Your task to perform on an android device: turn on improve location accuracy Image 0: 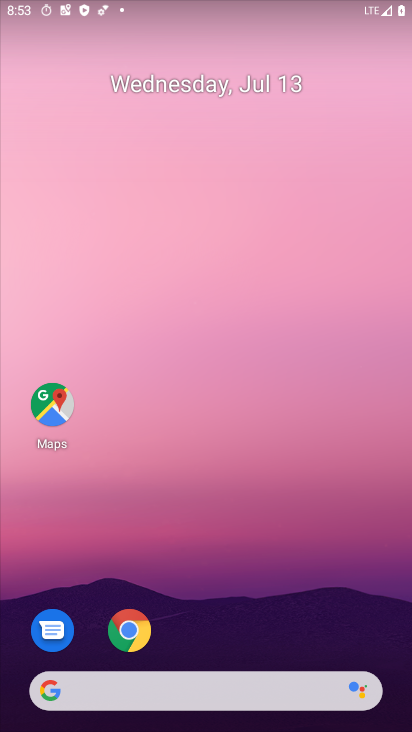
Step 0: drag from (363, 621) to (338, 69)
Your task to perform on an android device: turn on improve location accuracy Image 1: 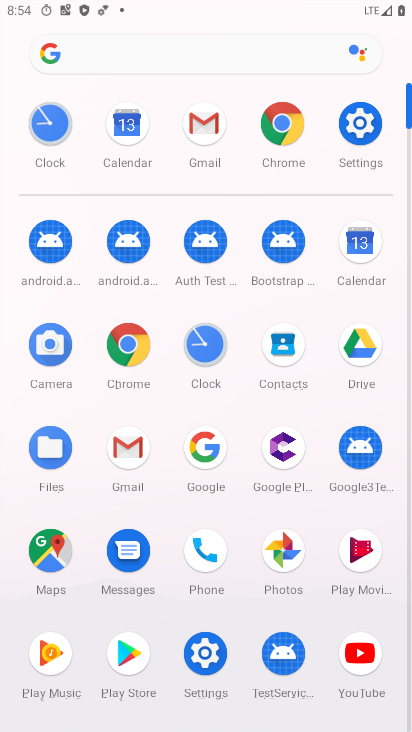
Step 1: click (366, 131)
Your task to perform on an android device: turn on improve location accuracy Image 2: 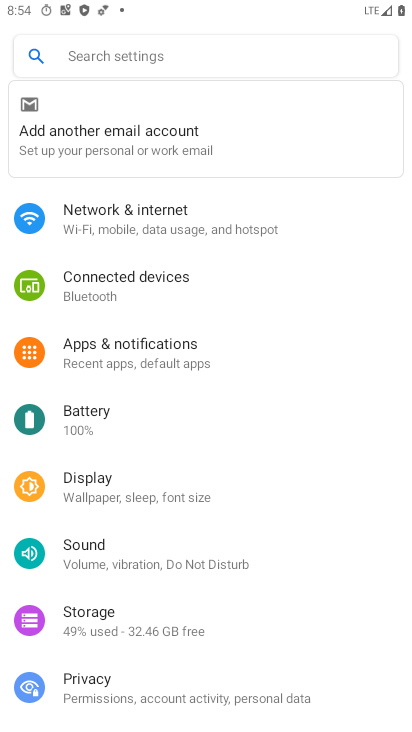
Step 2: drag from (330, 418) to (332, 295)
Your task to perform on an android device: turn on improve location accuracy Image 3: 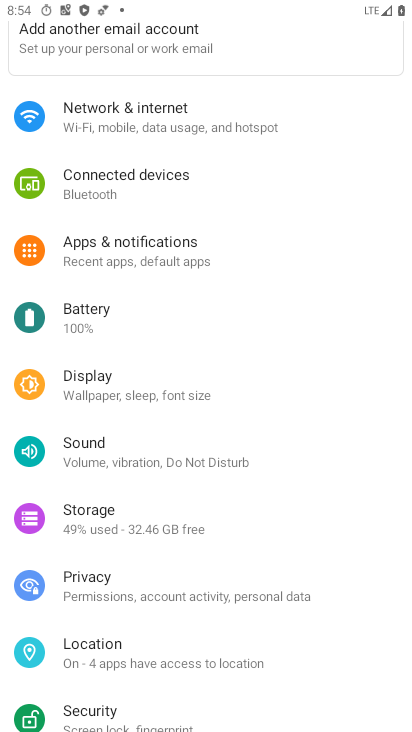
Step 3: drag from (333, 429) to (340, 292)
Your task to perform on an android device: turn on improve location accuracy Image 4: 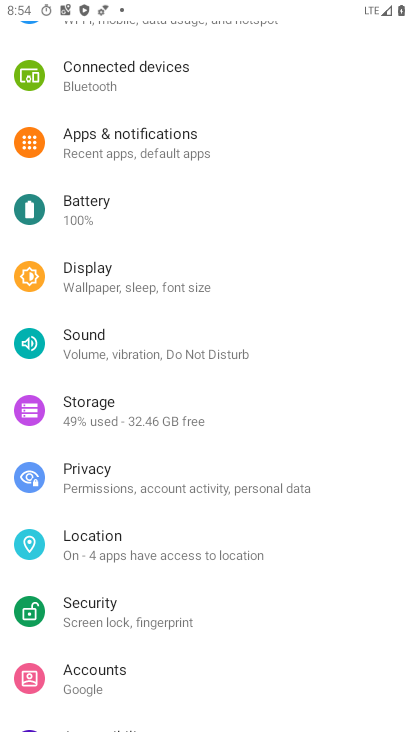
Step 4: drag from (353, 463) to (353, 334)
Your task to perform on an android device: turn on improve location accuracy Image 5: 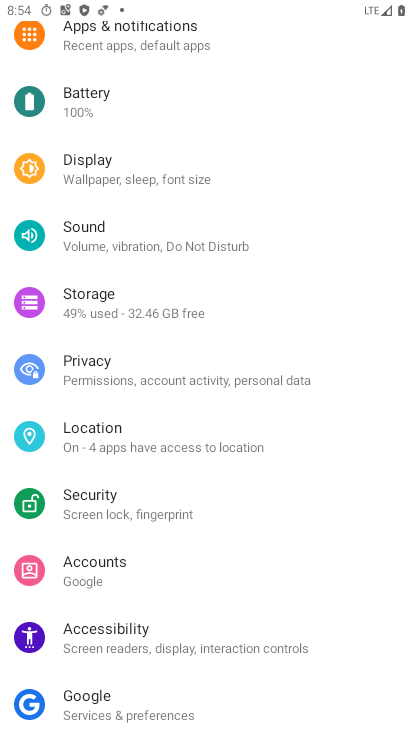
Step 5: drag from (347, 498) to (358, 373)
Your task to perform on an android device: turn on improve location accuracy Image 6: 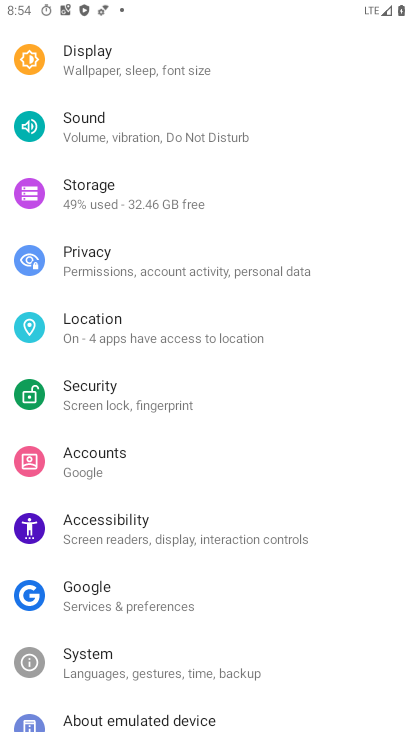
Step 6: drag from (342, 503) to (339, 369)
Your task to perform on an android device: turn on improve location accuracy Image 7: 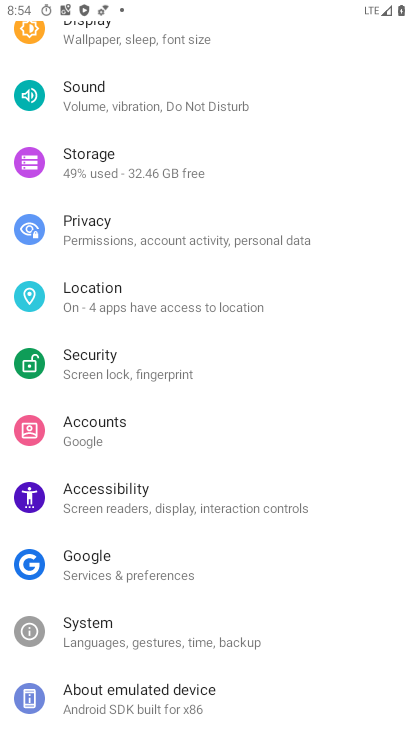
Step 7: drag from (348, 244) to (348, 316)
Your task to perform on an android device: turn on improve location accuracy Image 8: 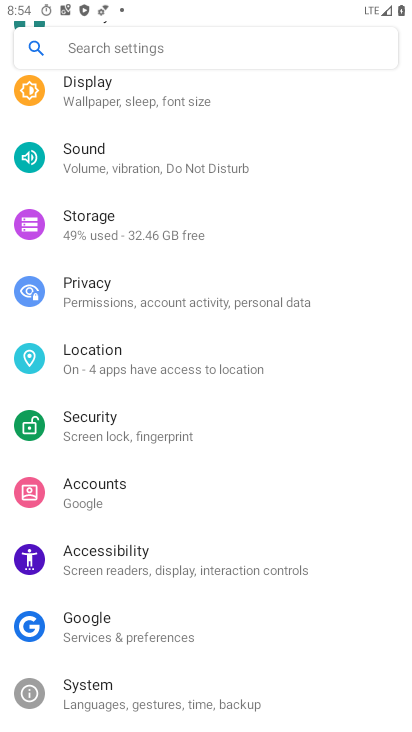
Step 8: drag from (340, 218) to (343, 313)
Your task to perform on an android device: turn on improve location accuracy Image 9: 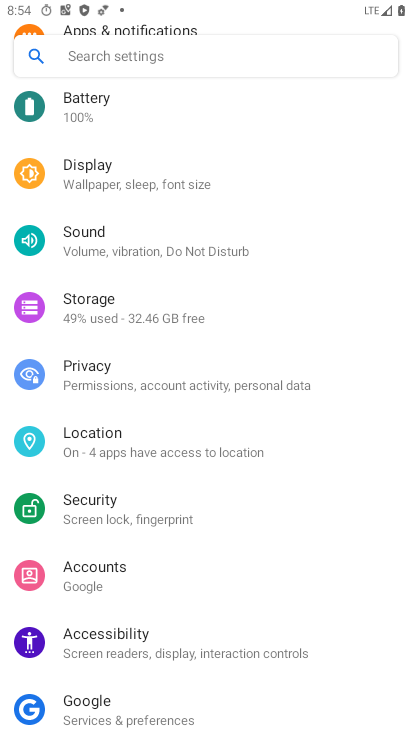
Step 9: drag from (329, 231) to (323, 326)
Your task to perform on an android device: turn on improve location accuracy Image 10: 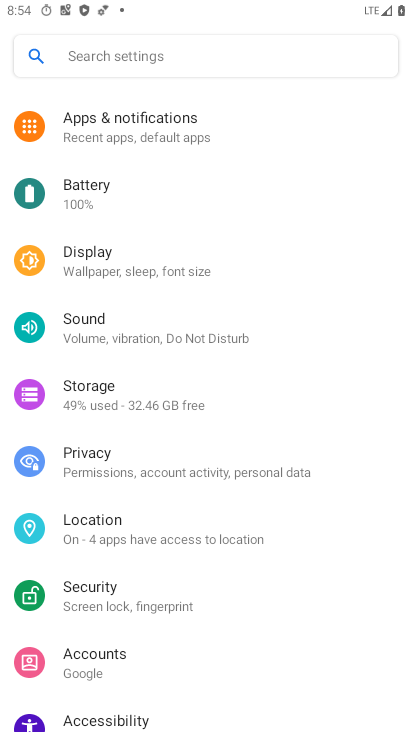
Step 10: click (280, 541)
Your task to perform on an android device: turn on improve location accuracy Image 11: 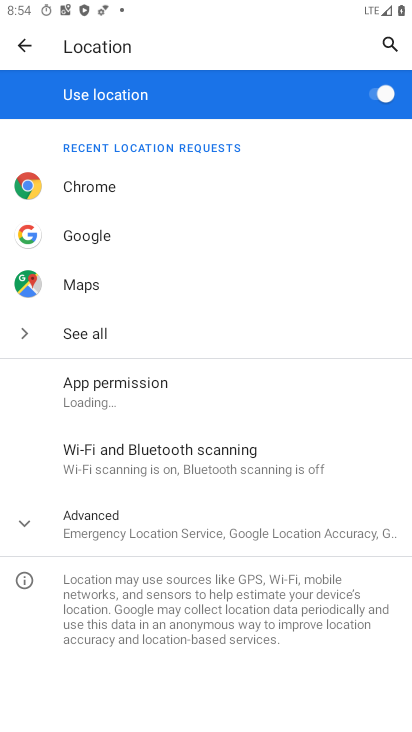
Step 11: click (280, 541)
Your task to perform on an android device: turn on improve location accuracy Image 12: 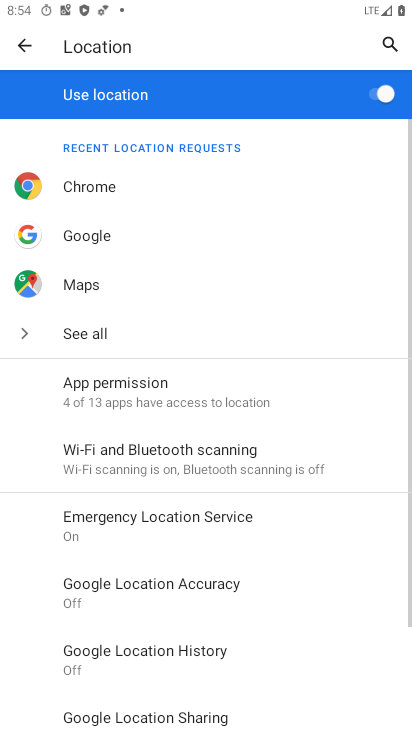
Step 12: drag from (312, 570) to (318, 503)
Your task to perform on an android device: turn on improve location accuracy Image 13: 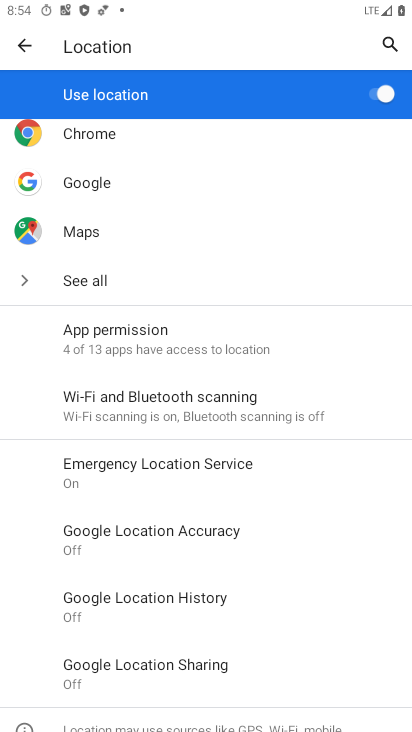
Step 13: drag from (323, 571) to (328, 494)
Your task to perform on an android device: turn on improve location accuracy Image 14: 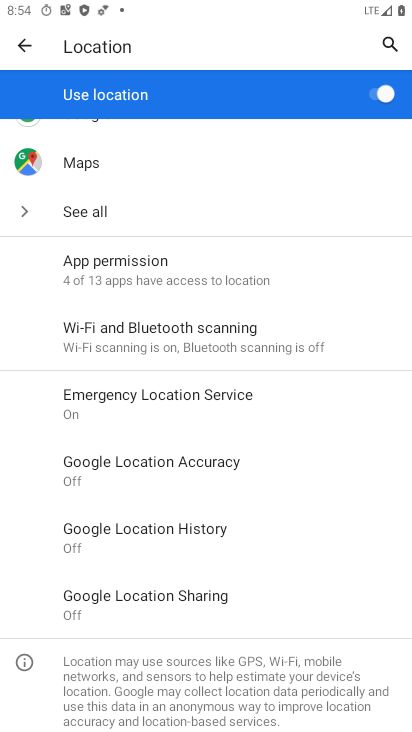
Step 14: click (249, 471)
Your task to perform on an android device: turn on improve location accuracy Image 15: 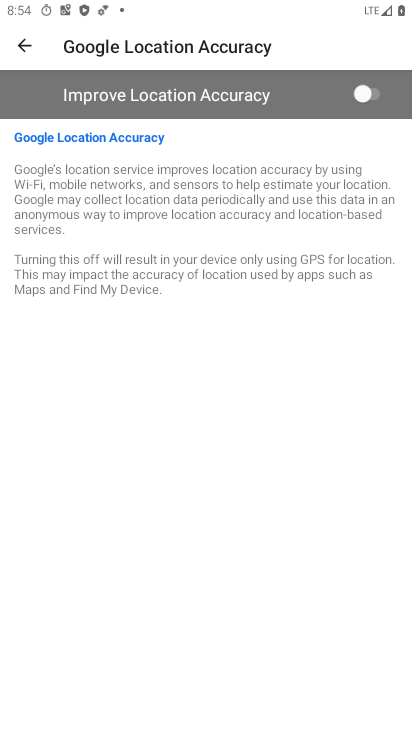
Step 15: click (365, 93)
Your task to perform on an android device: turn on improve location accuracy Image 16: 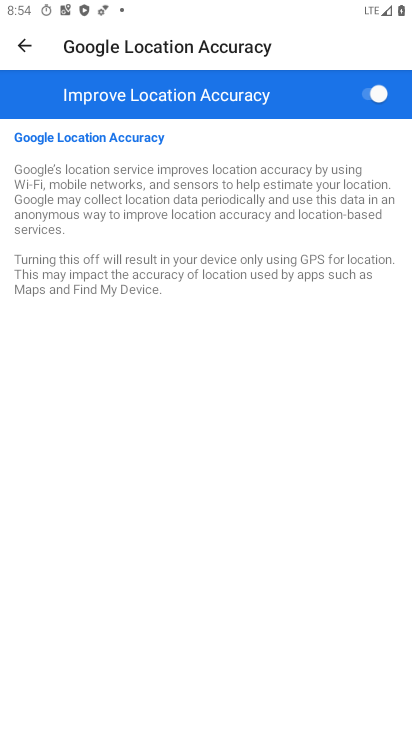
Step 16: task complete